Your task to perform on an android device: turn on the 24-hour format for clock Image 0: 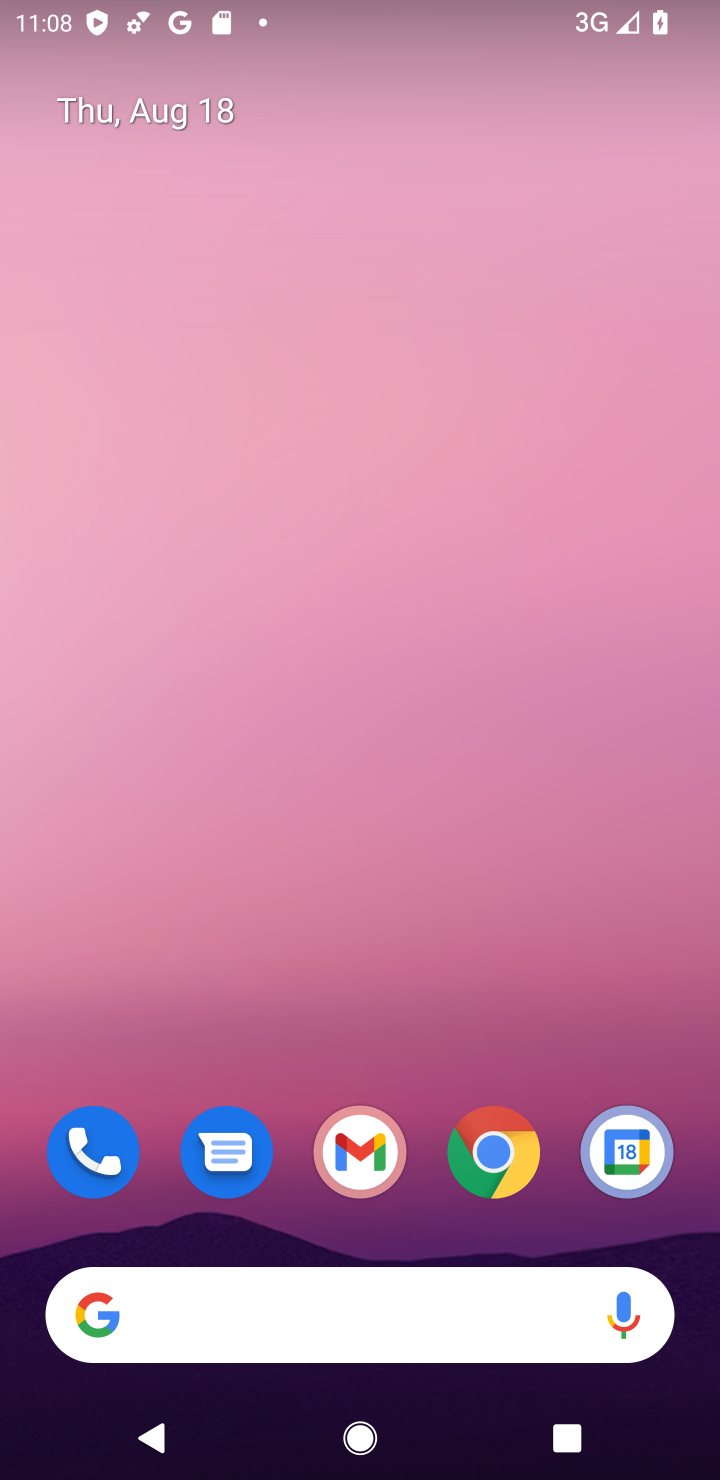
Step 0: drag from (422, 1071) to (467, 13)
Your task to perform on an android device: turn on the 24-hour format for clock Image 1: 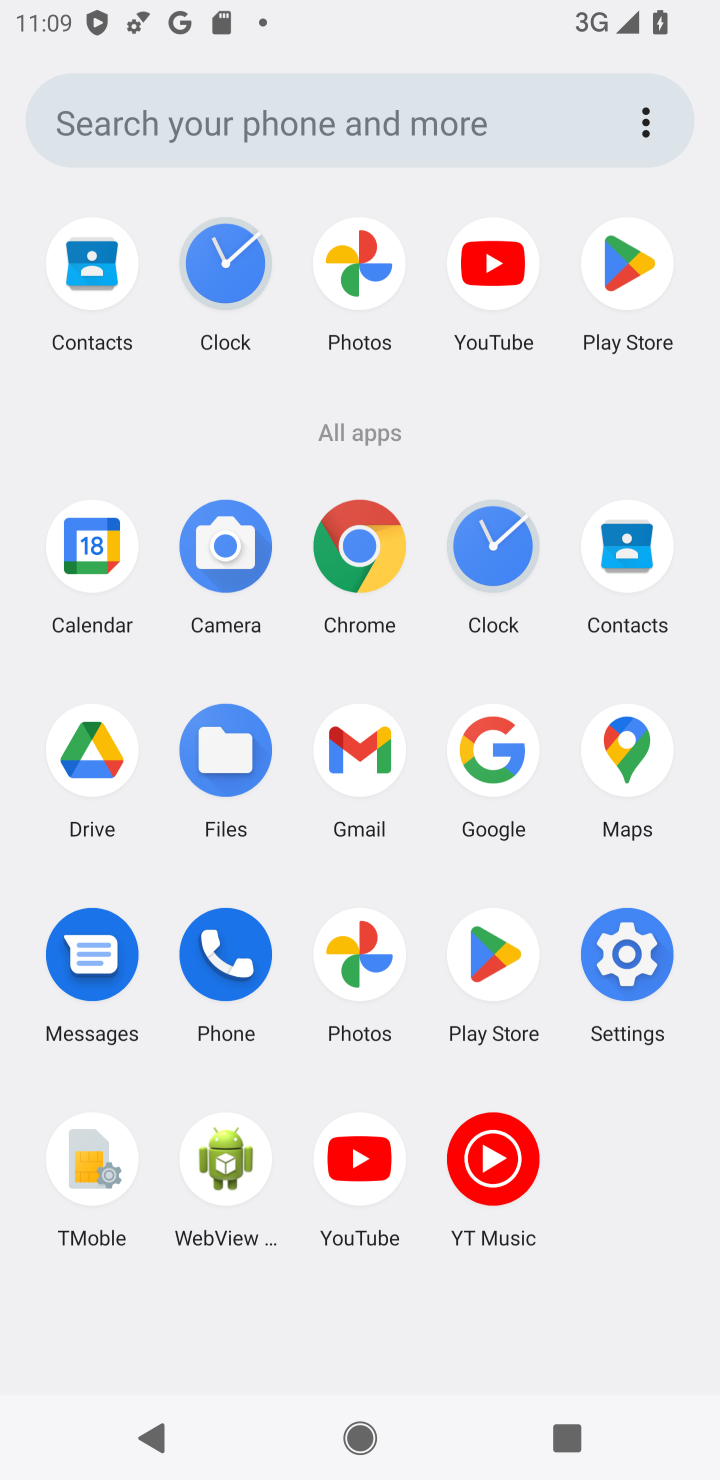
Step 1: click (234, 265)
Your task to perform on an android device: turn on the 24-hour format for clock Image 2: 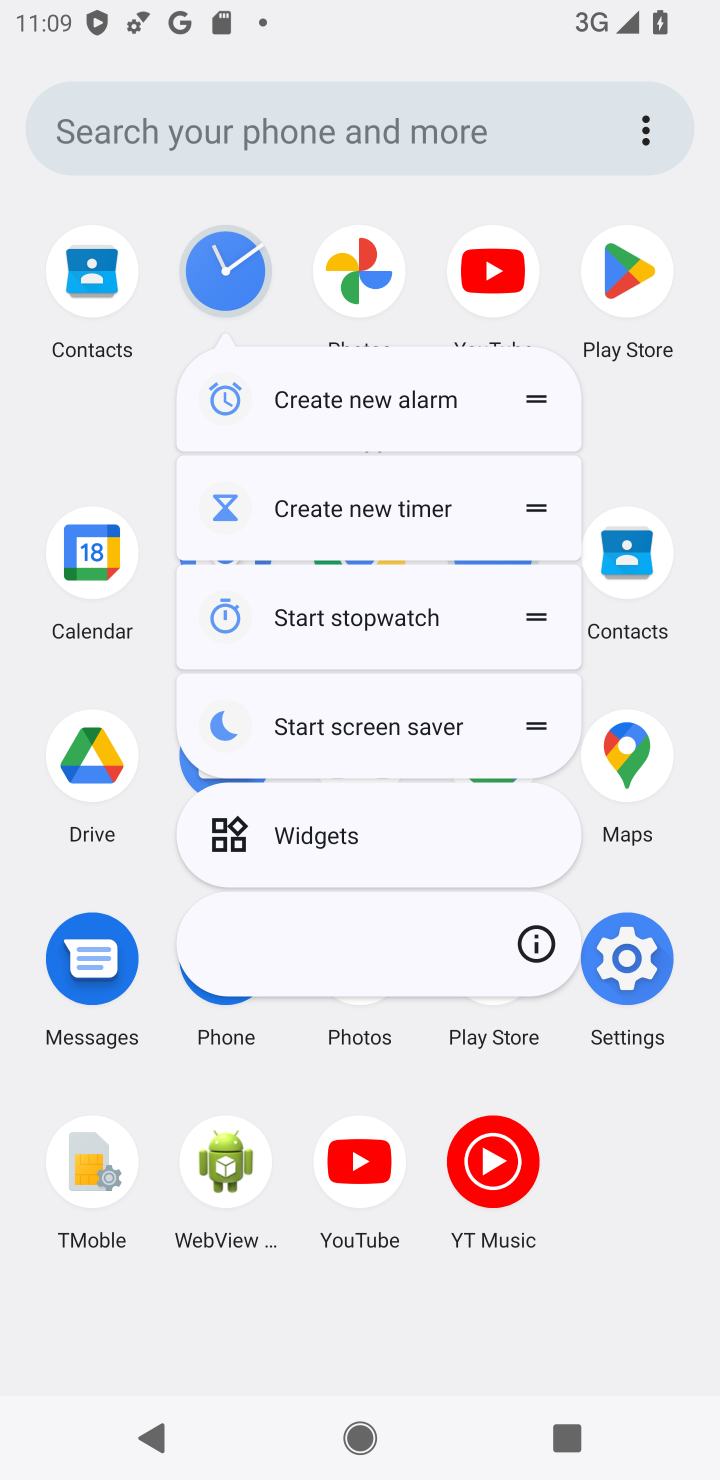
Step 2: click (648, 457)
Your task to perform on an android device: turn on the 24-hour format for clock Image 3: 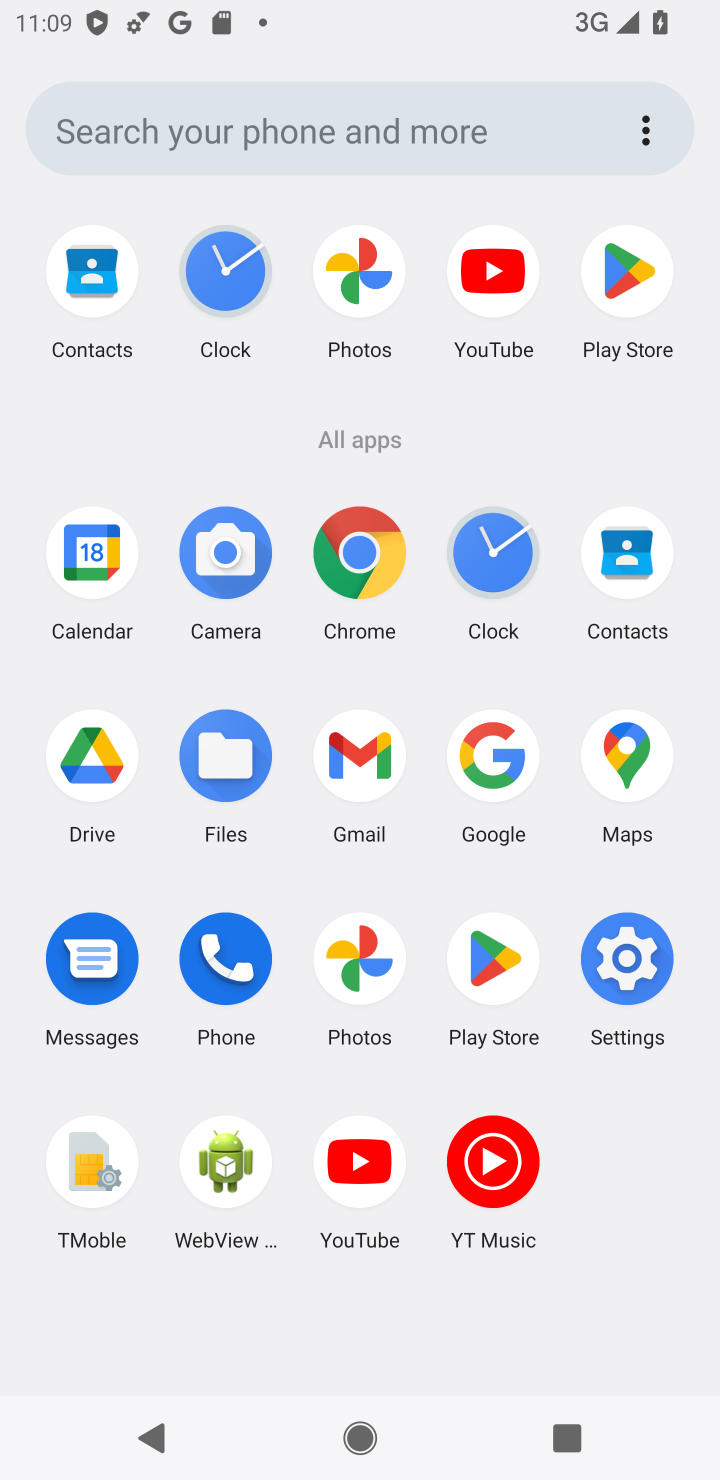
Step 3: click (216, 291)
Your task to perform on an android device: turn on the 24-hour format for clock Image 4: 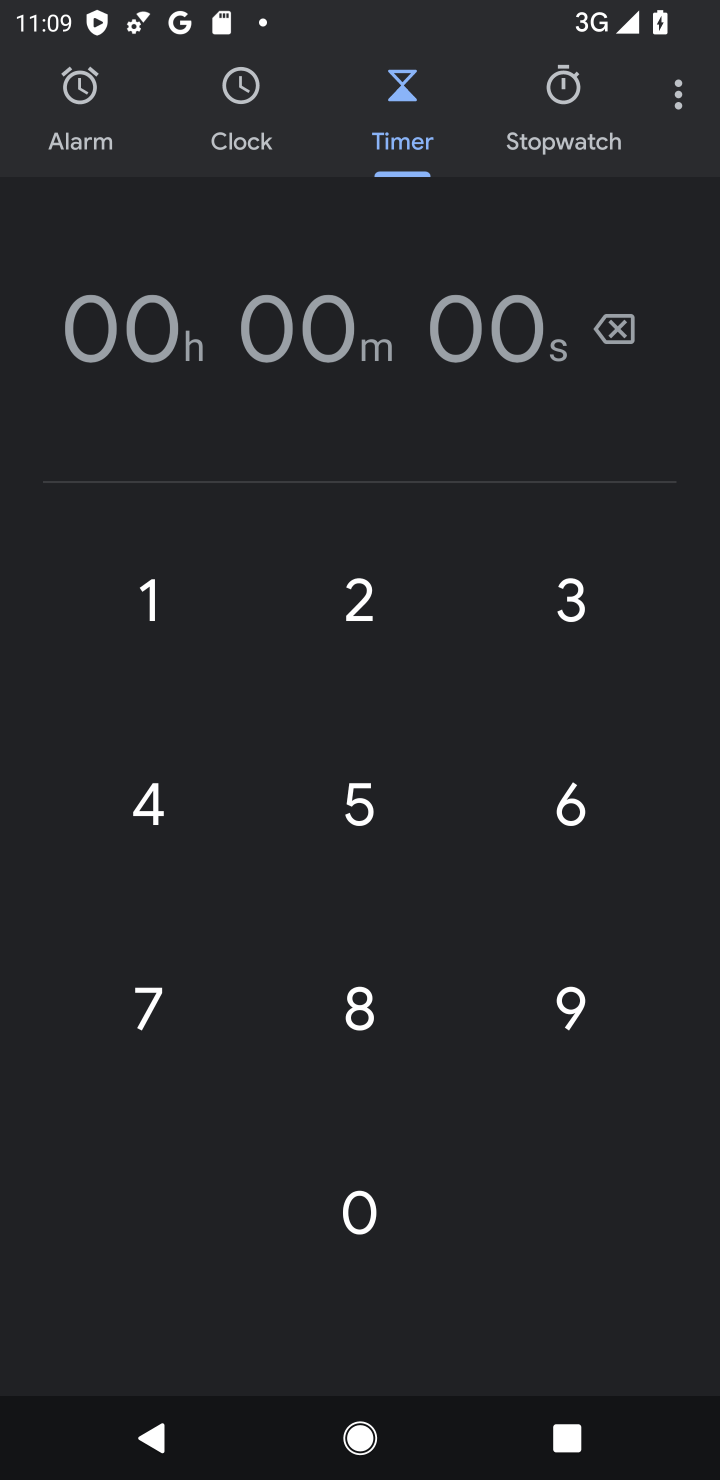
Step 4: click (679, 113)
Your task to perform on an android device: turn on the 24-hour format for clock Image 5: 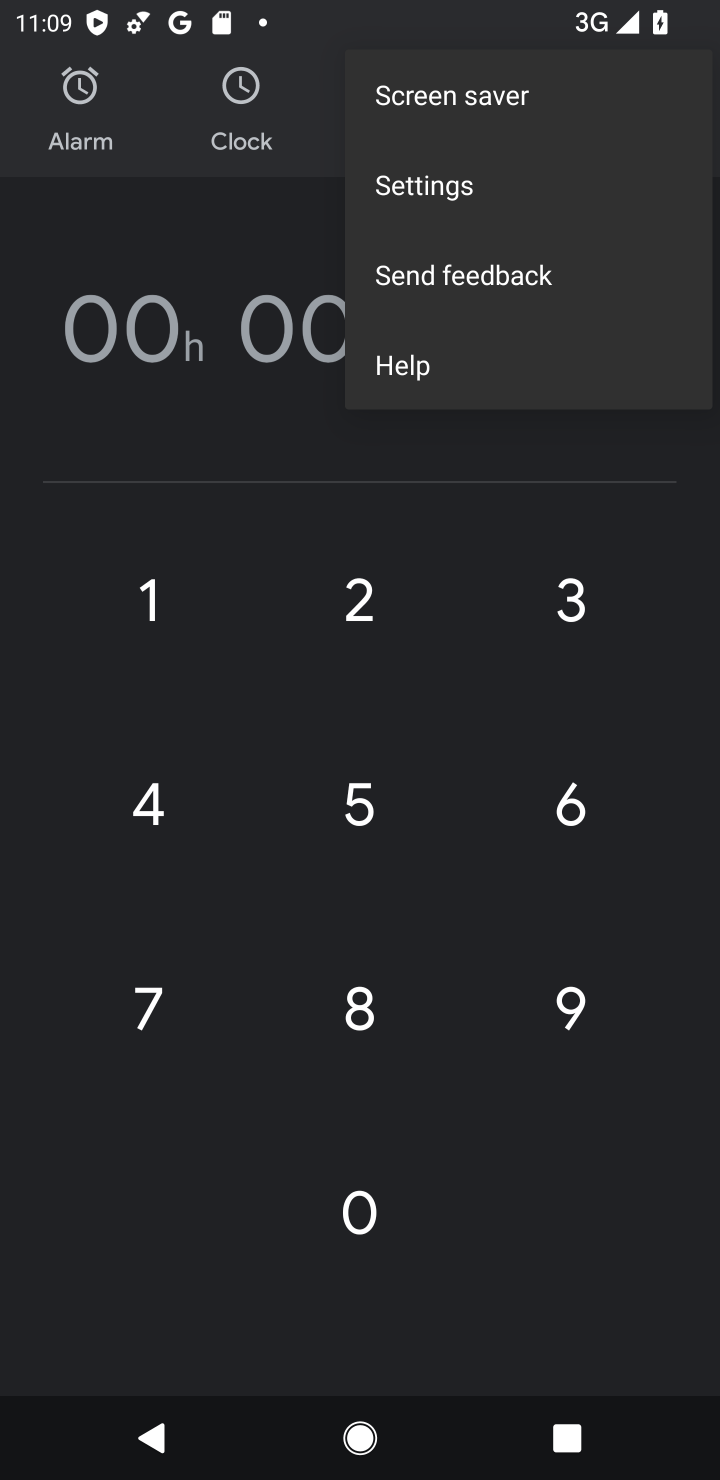
Step 5: click (518, 179)
Your task to perform on an android device: turn on the 24-hour format for clock Image 6: 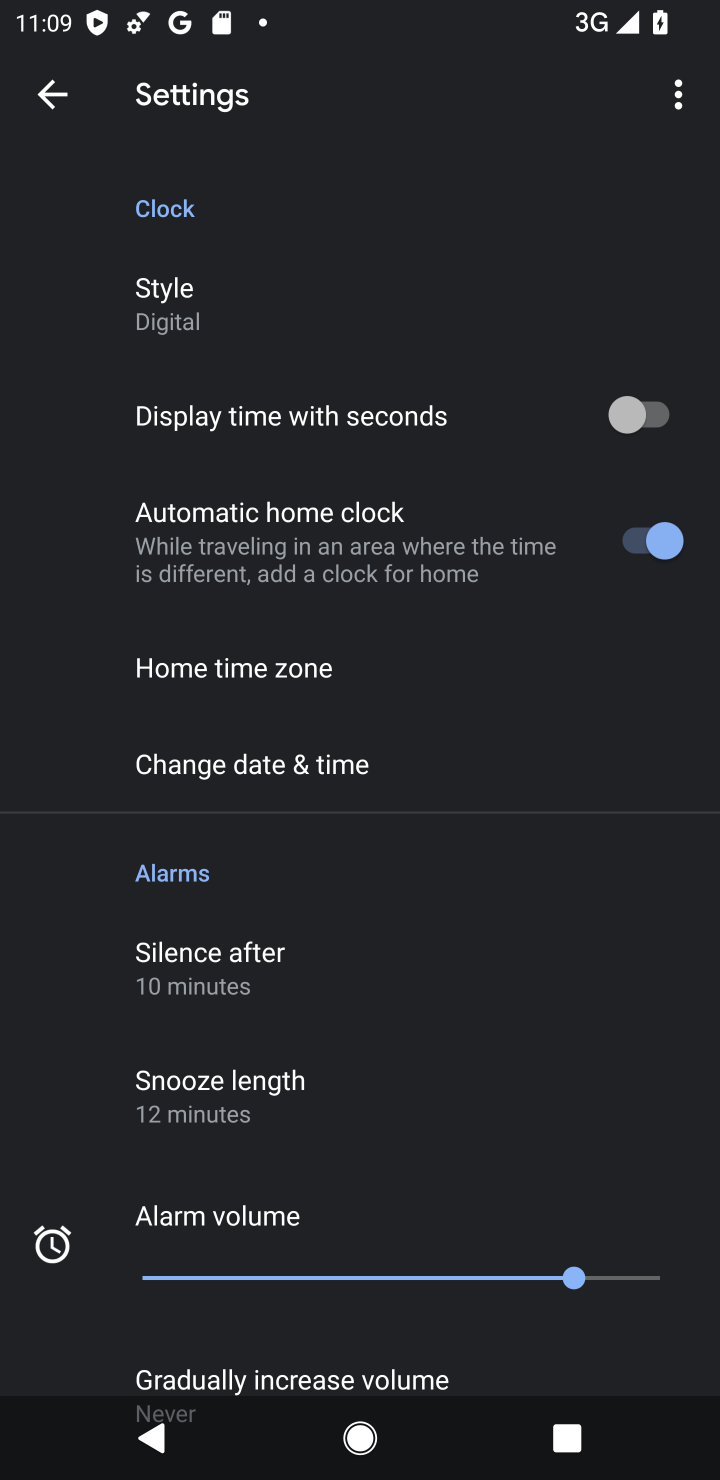
Step 6: click (377, 765)
Your task to perform on an android device: turn on the 24-hour format for clock Image 7: 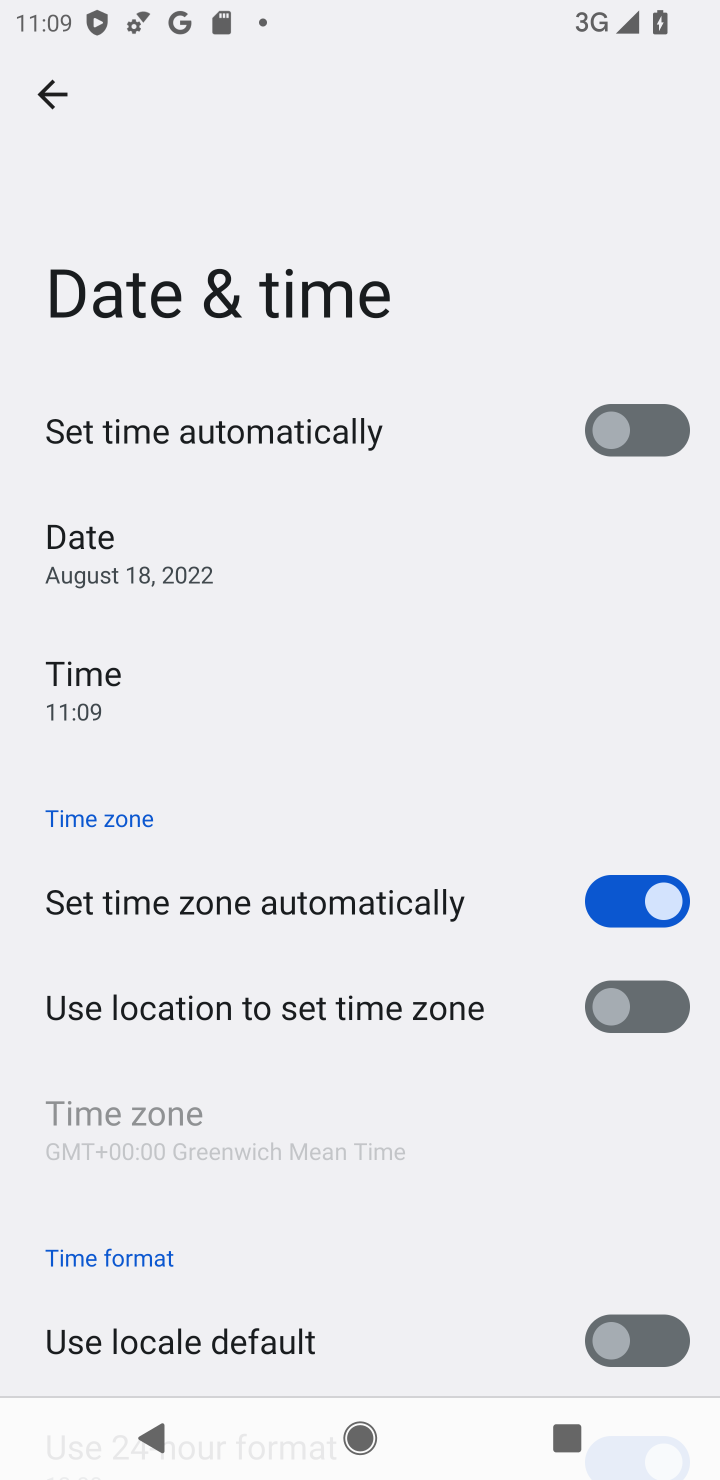
Step 7: task complete